Your task to perform on an android device: open sync settings in chrome Image 0: 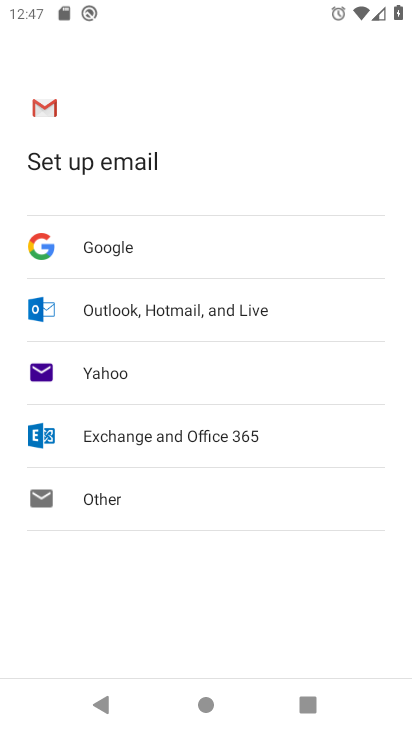
Step 0: press home button
Your task to perform on an android device: open sync settings in chrome Image 1: 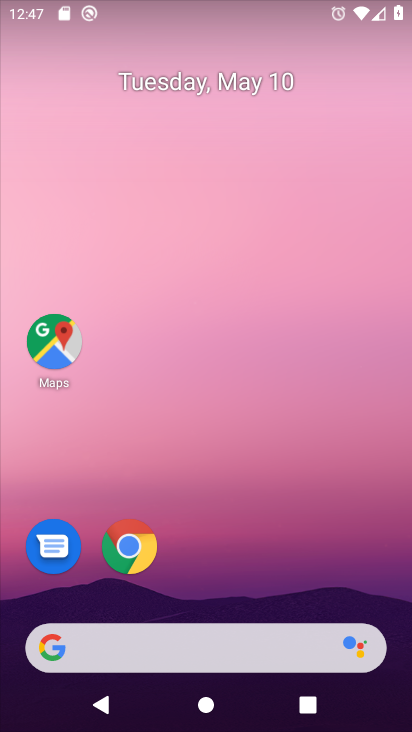
Step 1: drag from (285, 585) to (329, 6)
Your task to perform on an android device: open sync settings in chrome Image 2: 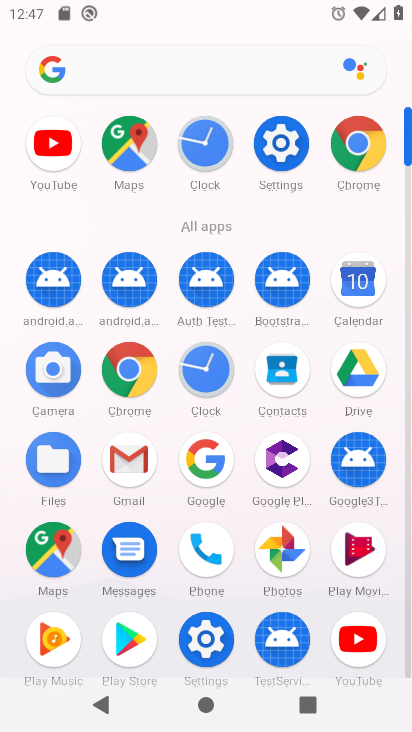
Step 2: click (360, 146)
Your task to perform on an android device: open sync settings in chrome Image 3: 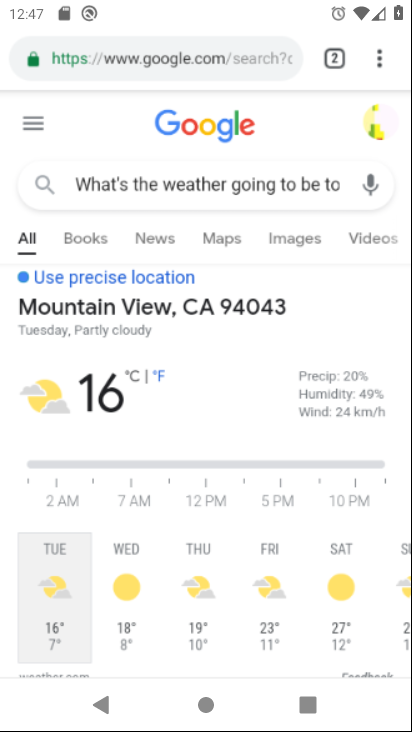
Step 3: drag from (375, 64) to (275, 368)
Your task to perform on an android device: open sync settings in chrome Image 4: 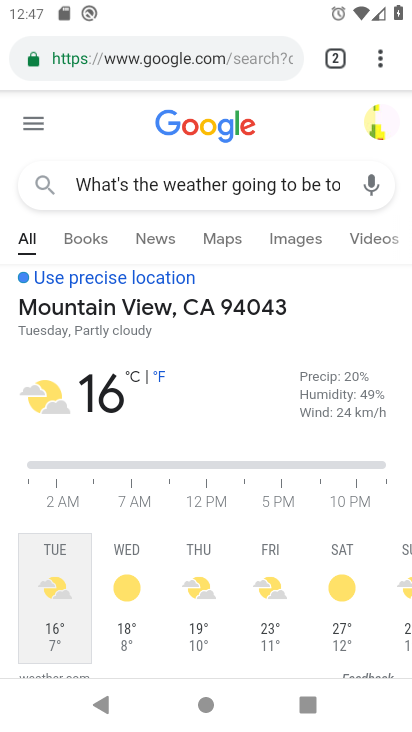
Step 4: drag from (387, 44) to (193, 554)
Your task to perform on an android device: open sync settings in chrome Image 5: 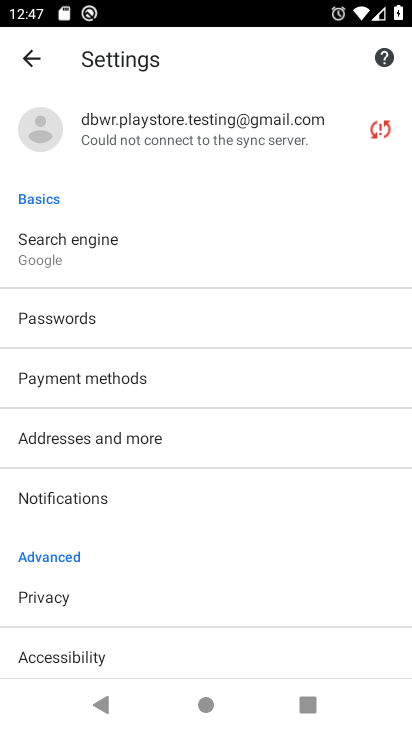
Step 5: click (120, 139)
Your task to perform on an android device: open sync settings in chrome Image 6: 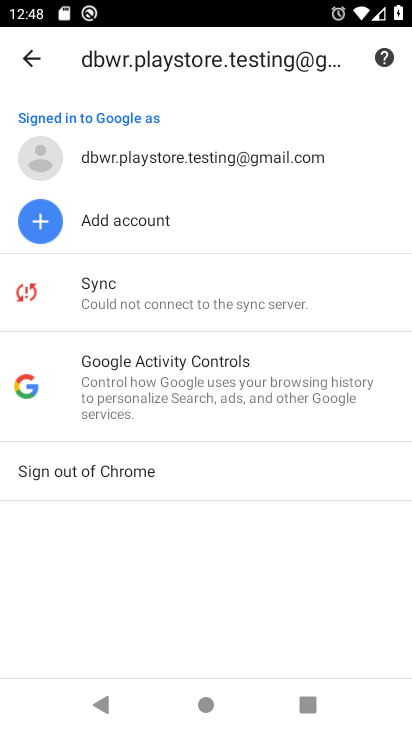
Step 6: click (130, 275)
Your task to perform on an android device: open sync settings in chrome Image 7: 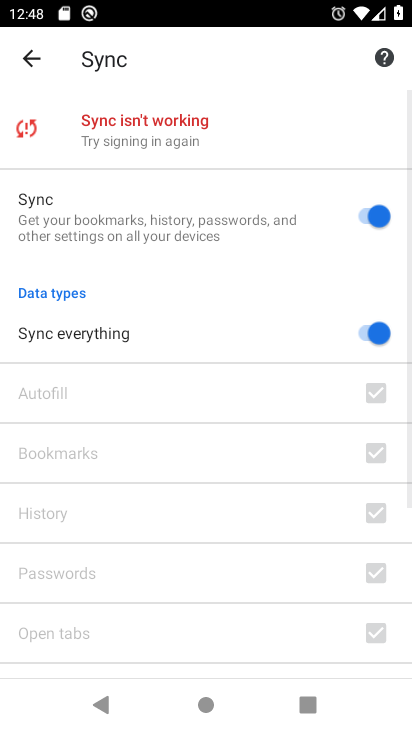
Step 7: task complete